Your task to perform on an android device: Find coffee shops on Maps Image 0: 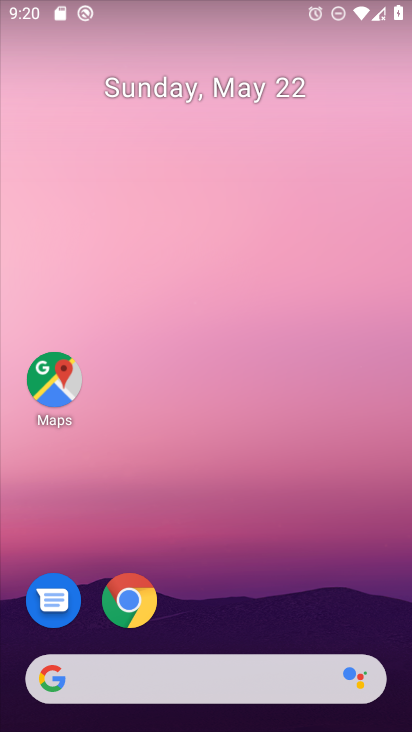
Step 0: drag from (204, 682) to (303, 96)
Your task to perform on an android device: Find coffee shops on Maps Image 1: 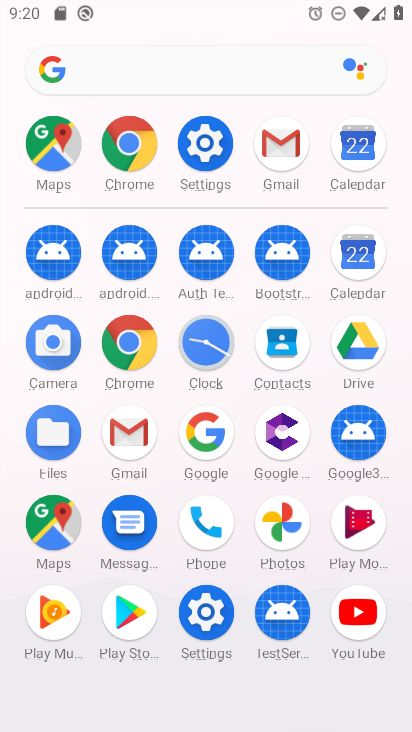
Step 1: click (63, 537)
Your task to perform on an android device: Find coffee shops on Maps Image 2: 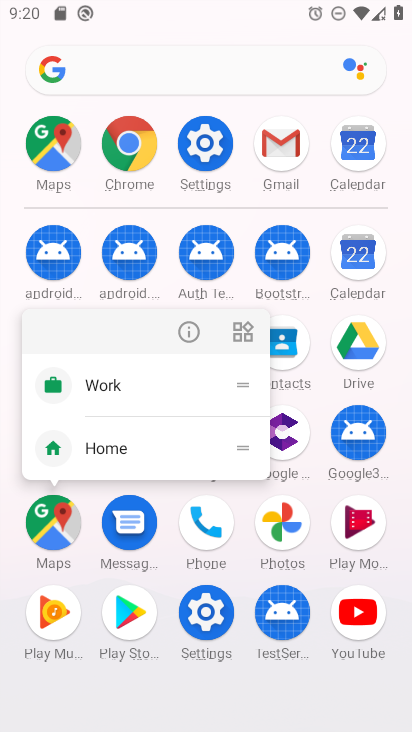
Step 2: click (56, 531)
Your task to perform on an android device: Find coffee shops on Maps Image 3: 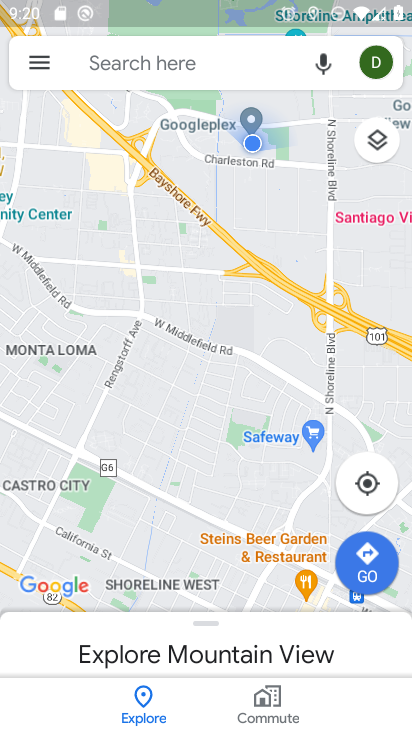
Step 3: click (154, 72)
Your task to perform on an android device: Find coffee shops on Maps Image 4: 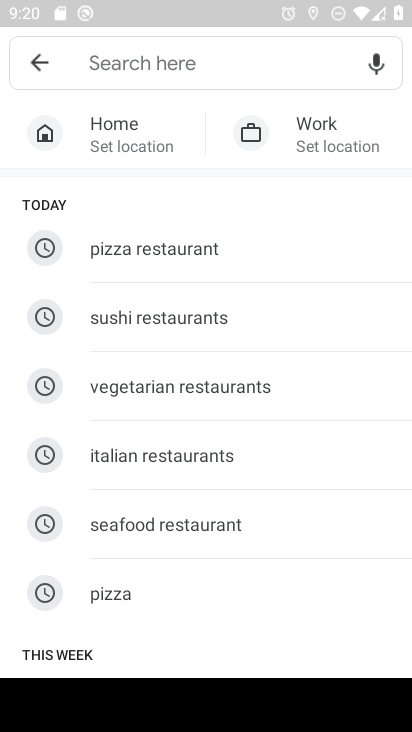
Step 4: type "coffee"
Your task to perform on an android device: Find coffee shops on Maps Image 5: 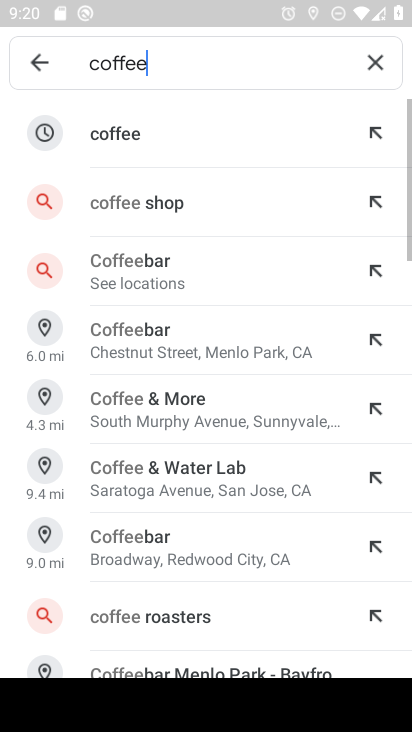
Step 5: click (230, 198)
Your task to perform on an android device: Find coffee shops on Maps Image 6: 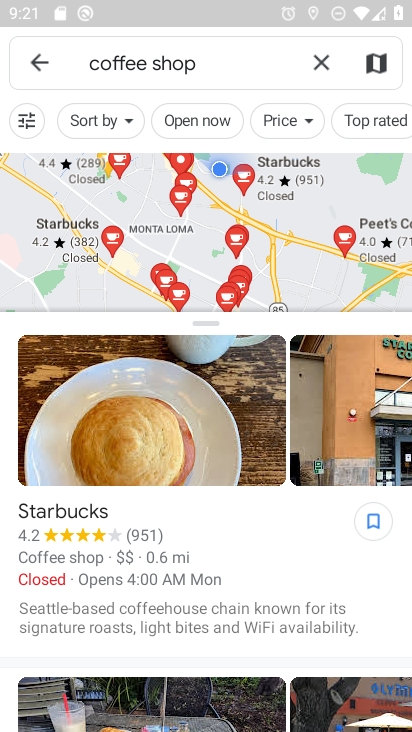
Step 6: task complete